Your task to perform on an android device: Open Chrome and go to settings Image 0: 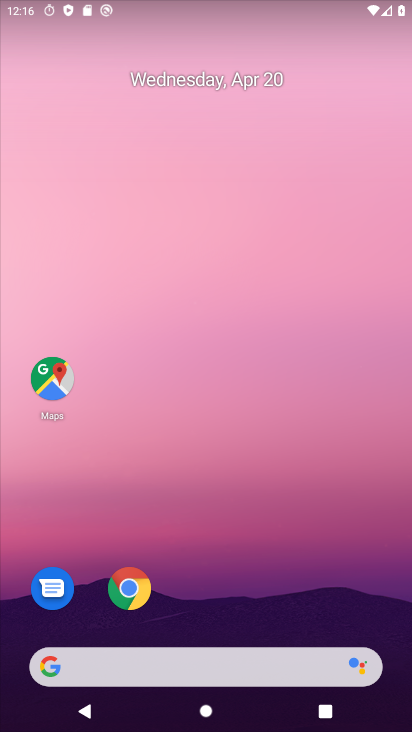
Step 0: click (135, 585)
Your task to perform on an android device: Open Chrome and go to settings Image 1: 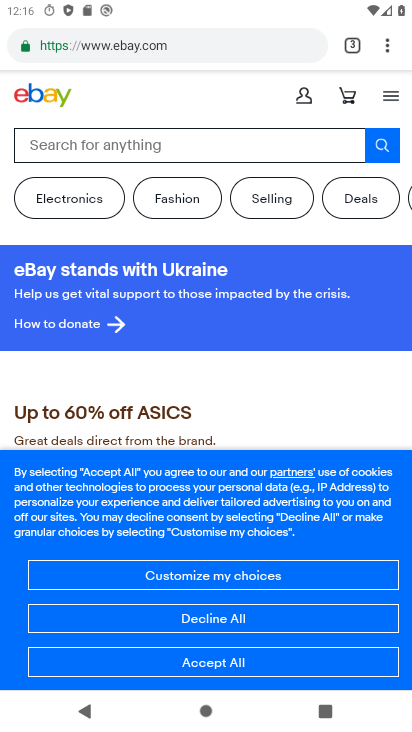
Step 1: task complete